Your task to perform on an android device: open a new tab in the chrome app Image 0: 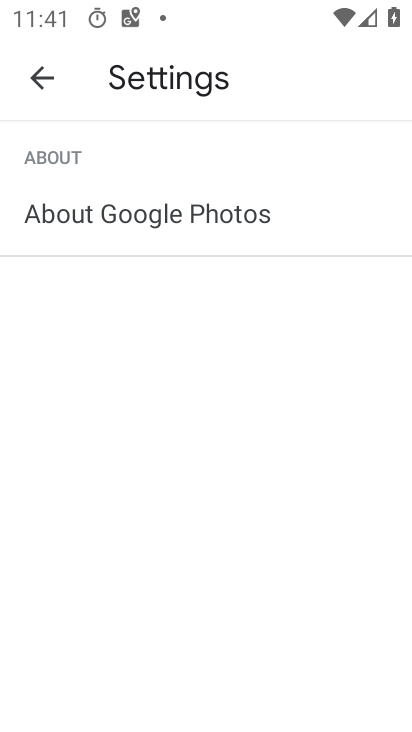
Step 0: press home button
Your task to perform on an android device: open a new tab in the chrome app Image 1: 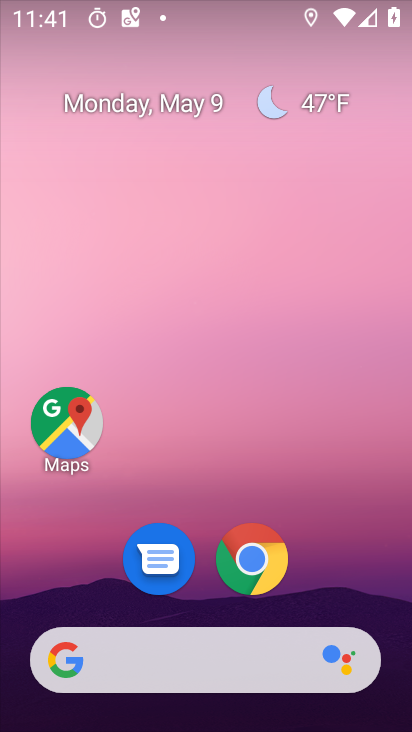
Step 1: drag from (364, 578) to (362, 125)
Your task to perform on an android device: open a new tab in the chrome app Image 2: 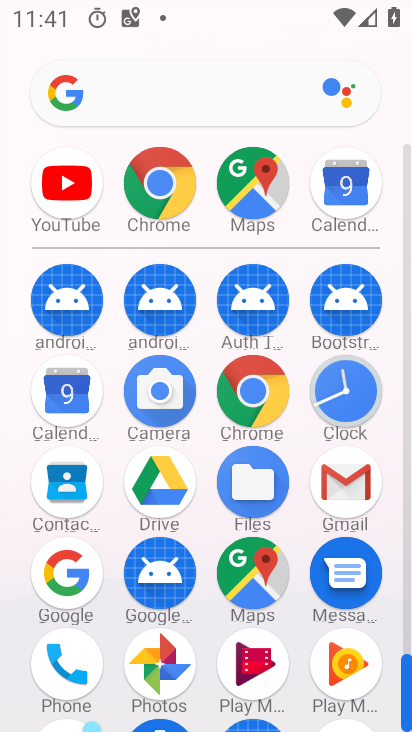
Step 2: click (159, 198)
Your task to perform on an android device: open a new tab in the chrome app Image 3: 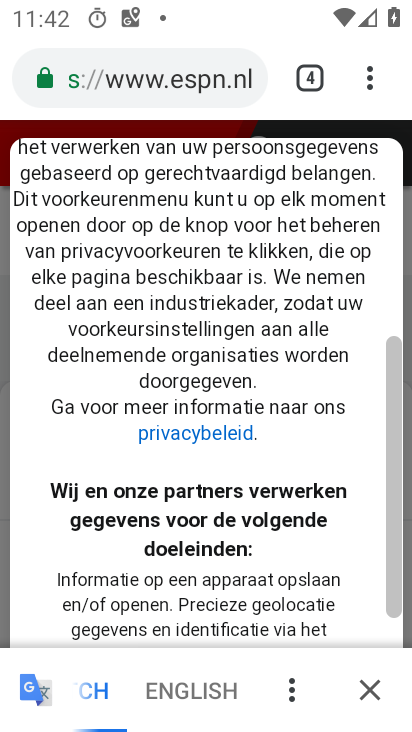
Step 3: task complete